Your task to perform on an android device: What's the weather going to be this weekend? Image 0: 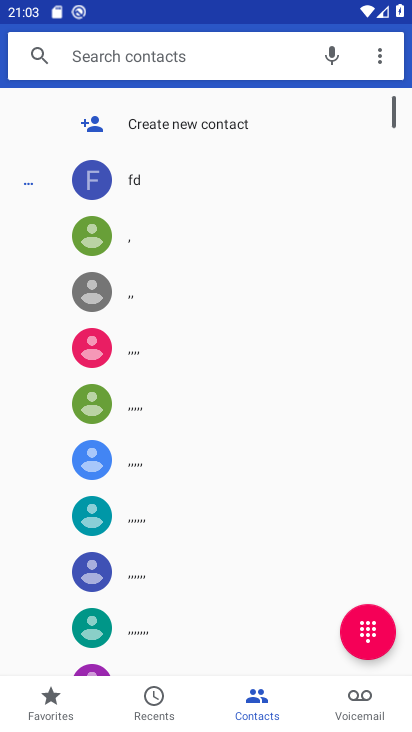
Step 0: press home button
Your task to perform on an android device: What's the weather going to be this weekend? Image 1: 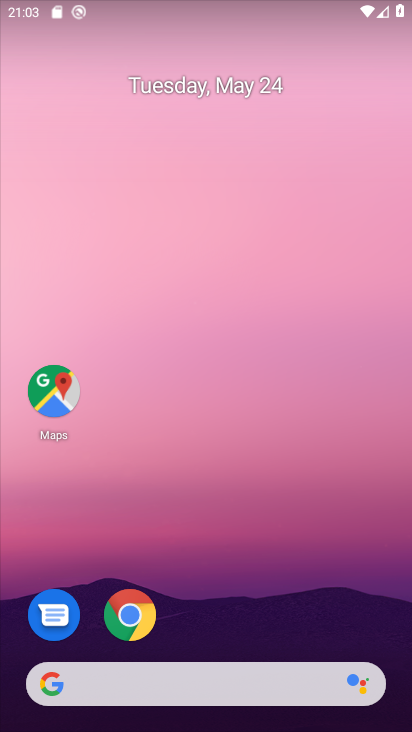
Step 1: click (128, 607)
Your task to perform on an android device: What's the weather going to be this weekend? Image 2: 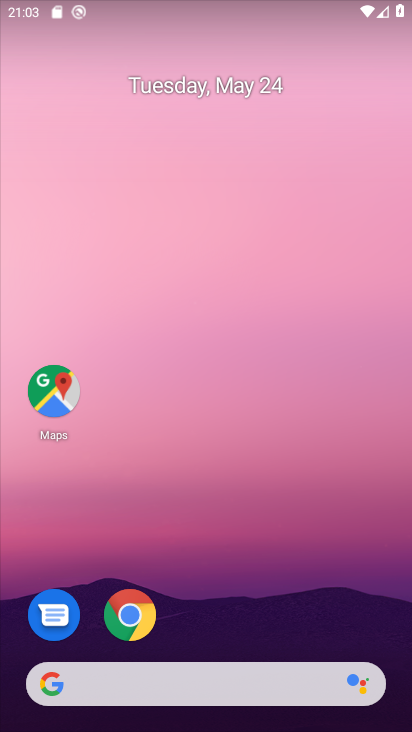
Step 2: click (125, 615)
Your task to perform on an android device: What's the weather going to be this weekend? Image 3: 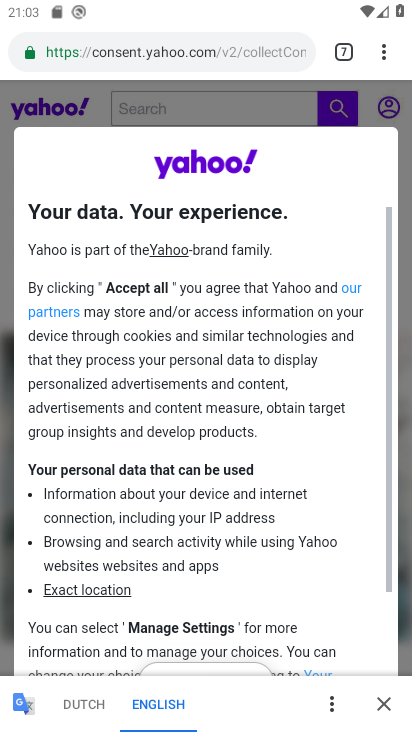
Step 3: click (384, 50)
Your task to perform on an android device: What's the weather going to be this weekend? Image 4: 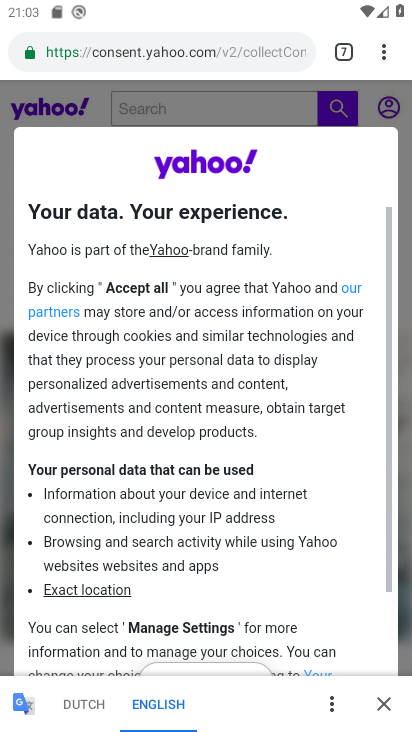
Step 4: click (376, 41)
Your task to perform on an android device: What's the weather going to be this weekend? Image 5: 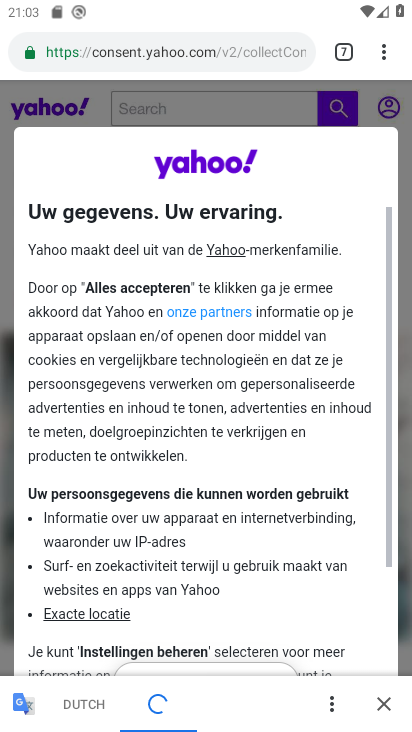
Step 5: click (389, 52)
Your task to perform on an android device: What's the weather going to be this weekend? Image 6: 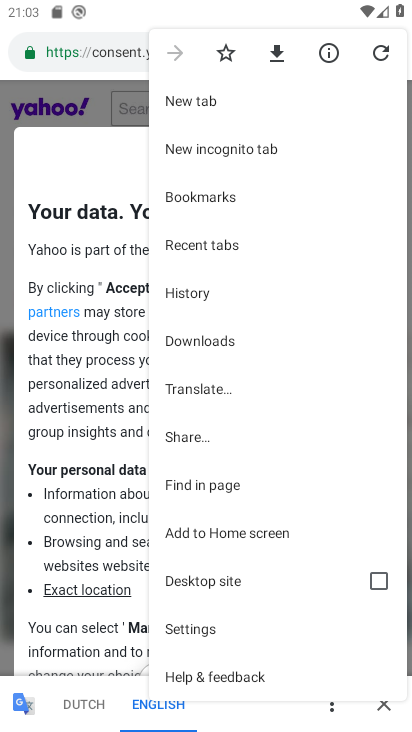
Step 6: click (204, 97)
Your task to perform on an android device: What's the weather going to be this weekend? Image 7: 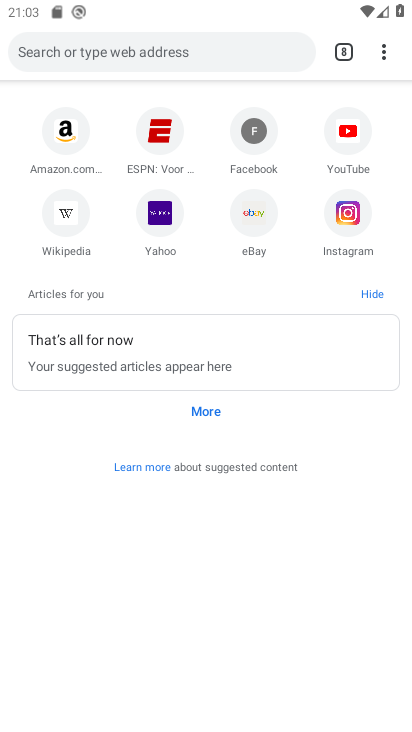
Step 7: click (126, 41)
Your task to perform on an android device: What's the weather going to be this weekend? Image 8: 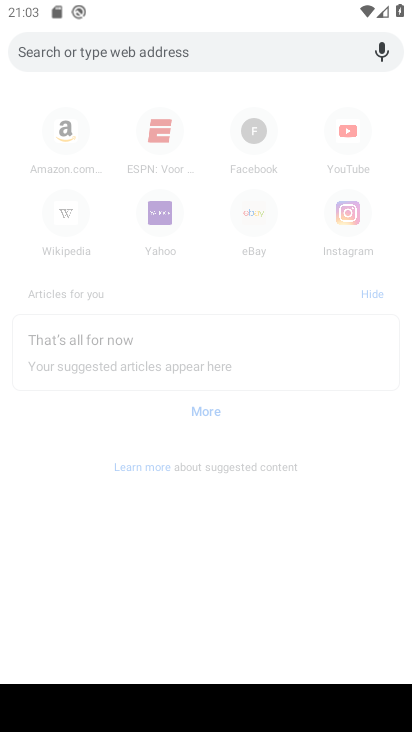
Step 8: type "What's the weather going to be this weekend?"
Your task to perform on an android device: What's the weather going to be this weekend? Image 9: 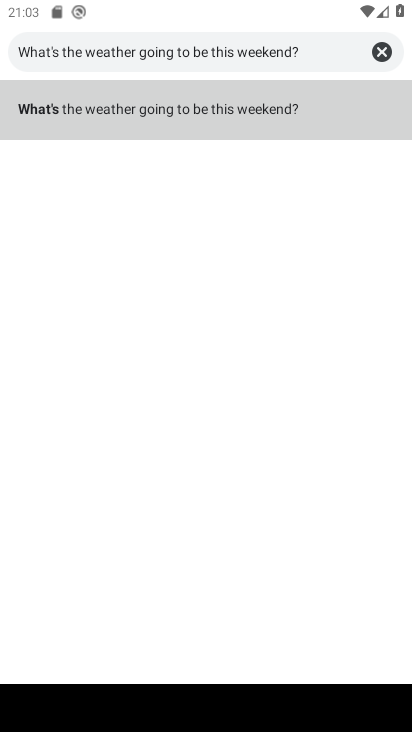
Step 9: click (157, 108)
Your task to perform on an android device: What's the weather going to be this weekend? Image 10: 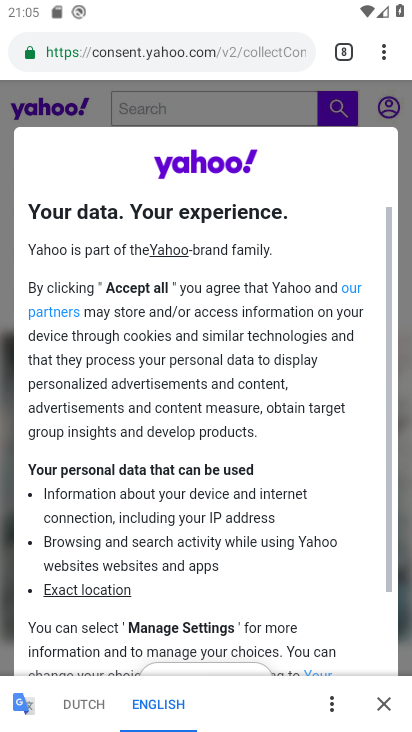
Step 10: task complete